Your task to perform on an android device: find photos in the google photos app Image 0: 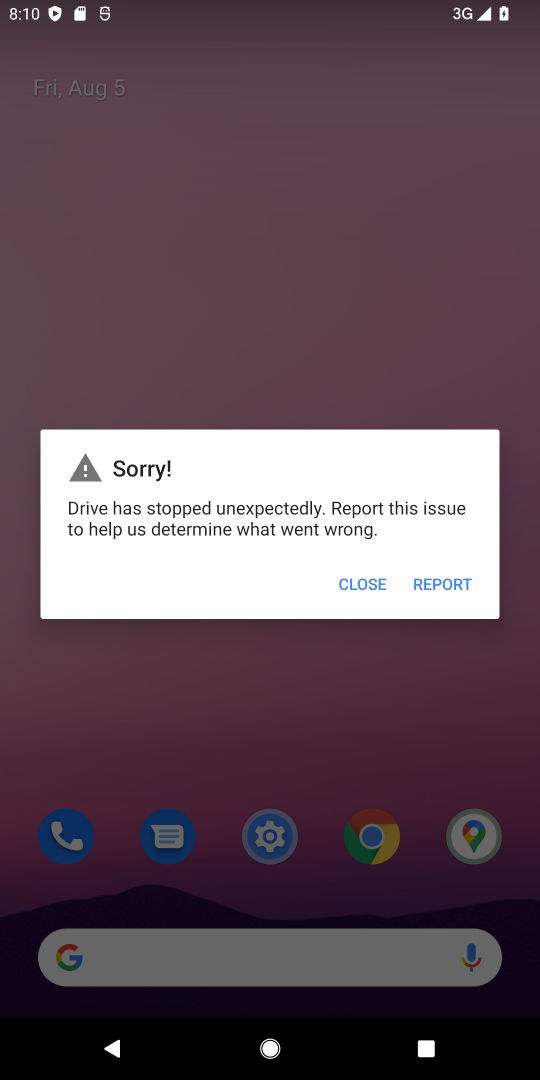
Step 0: press home button
Your task to perform on an android device: find photos in the google photos app Image 1: 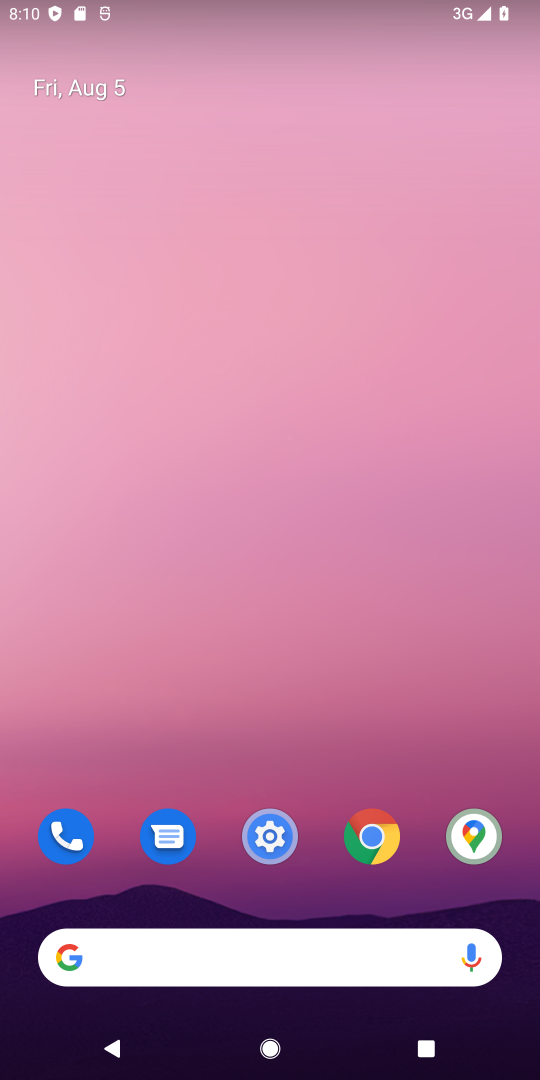
Step 1: drag from (290, 743) to (357, 31)
Your task to perform on an android device: find photos in the google photos app Image 2: 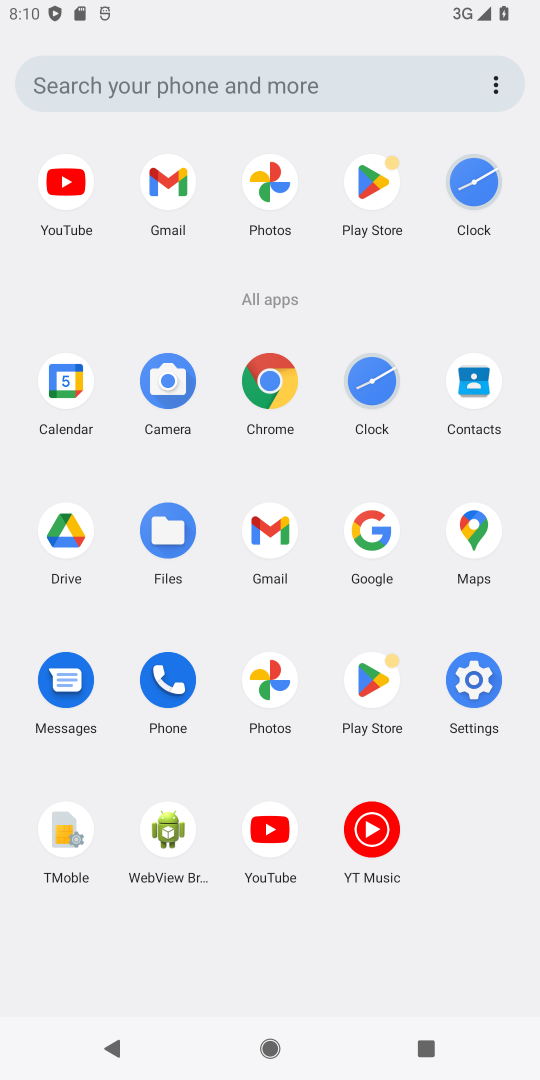
Step 2: click (270, 679)
Your task to perform on an android device: find photos in the google photos app Image 3: 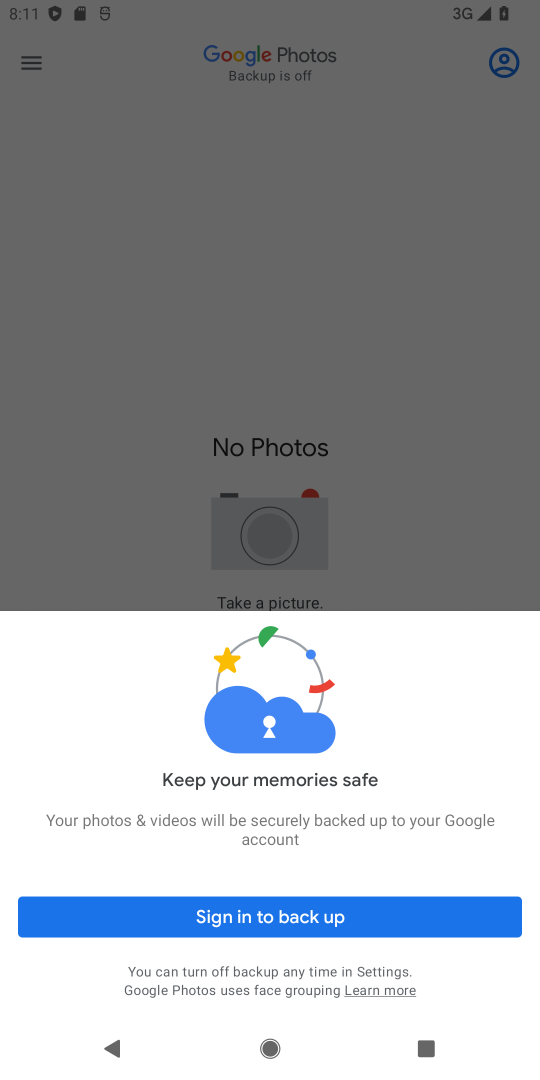
Step 3: click (266, 919)
Your task to perform on an android device: find photos in the google photos app Image 4: 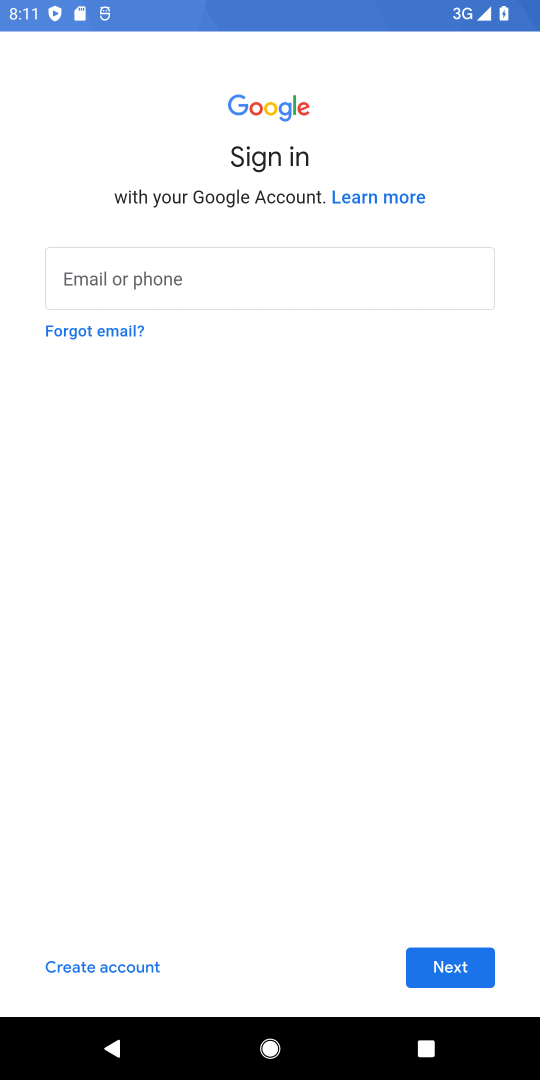
Step 4: click (463, 970)
Your task to perform on an android device: find photos in the google photos app Image 5: 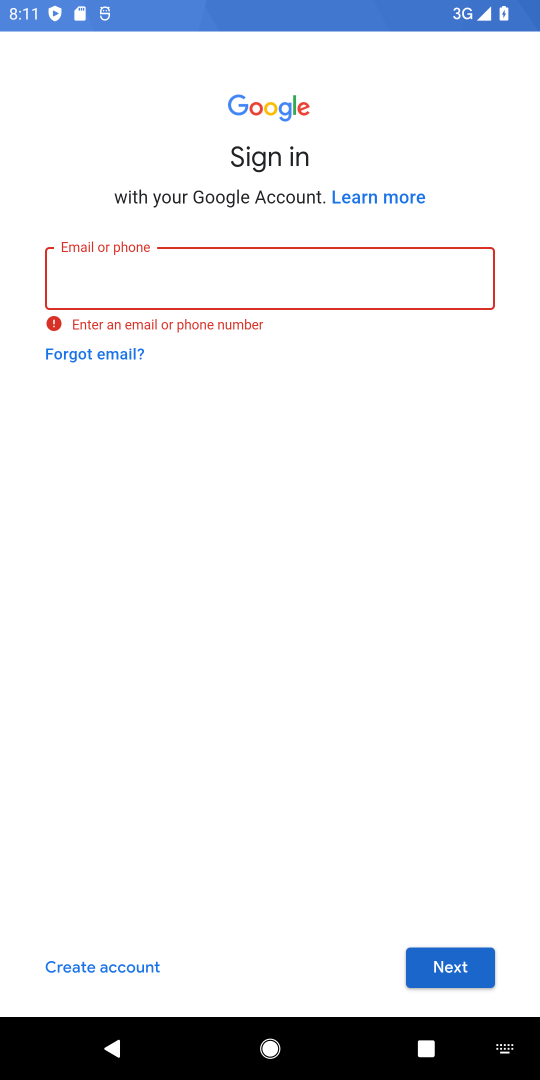
Step 5: click (463, 970)
Your task to perform on an android device: find photos in the google photos app Image 6: 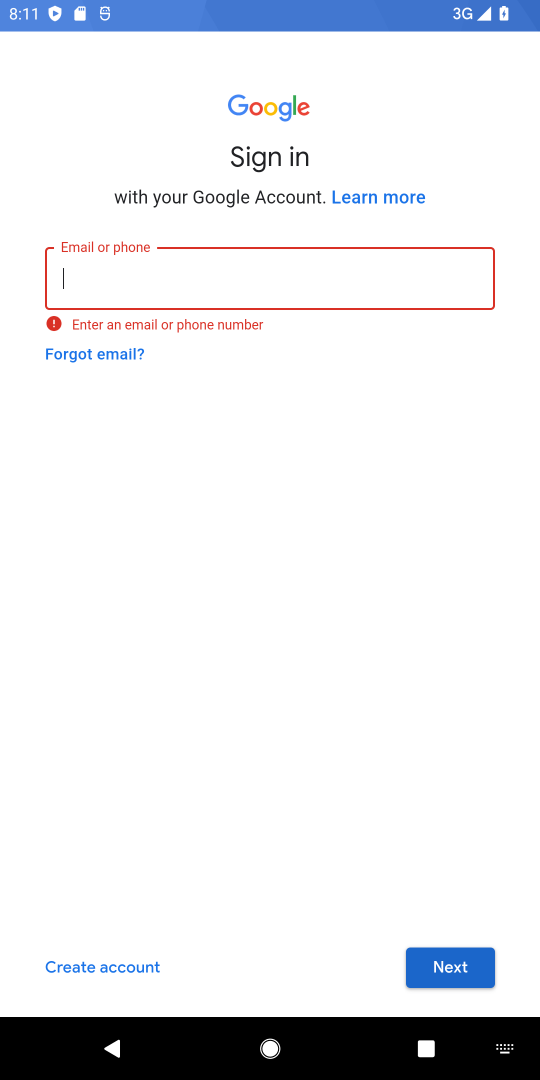
Step 6: task complete